Your task to perform on an android device: change keyboard looks Image 0: 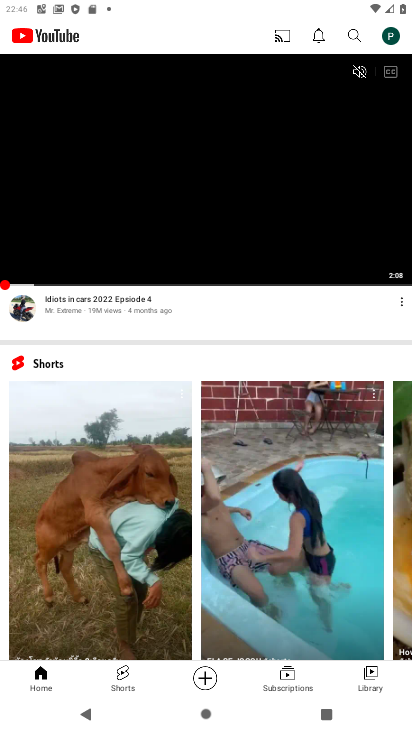
Step 0: press home button
Your task to perform on an android device: change keyboard looks Image 1: 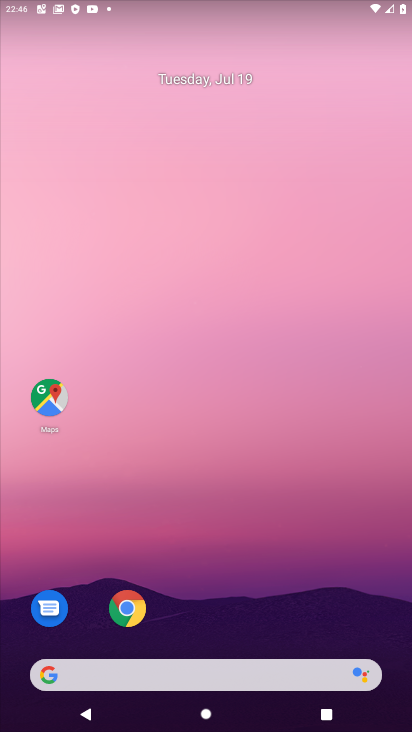
Step 1: drag from (258, 631) to (267, 98)
Your task to perform on an android device: change keyboard looks Image 2: 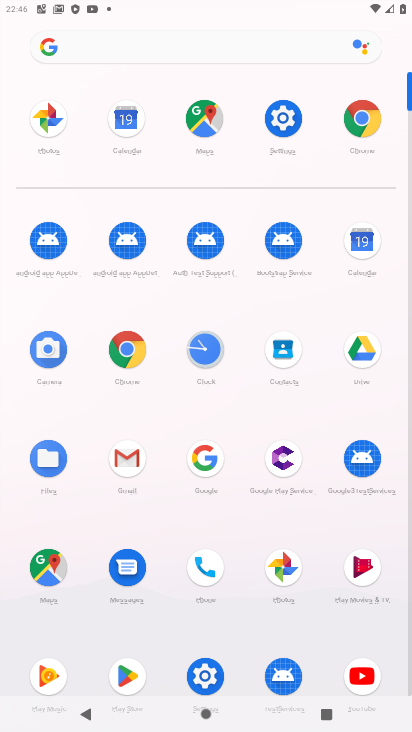
Step 2: click (275, 125)
Your task to perform on an android device: change keyboard looks Image 3: 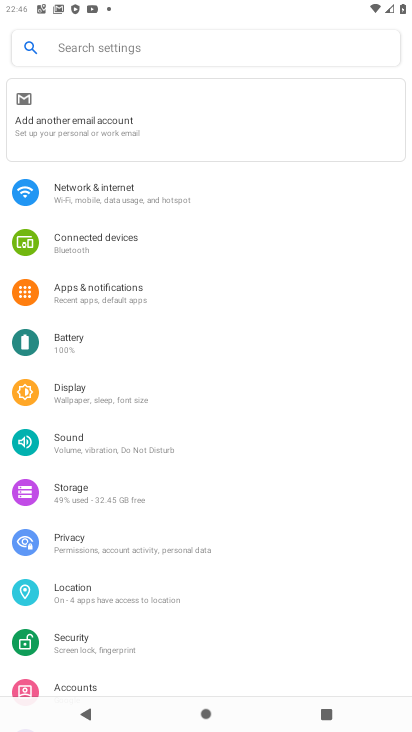
Step 3: drag from (259, 617) to (247, 182)
Your task to perform on an android device: change keyboard looks Image 4: 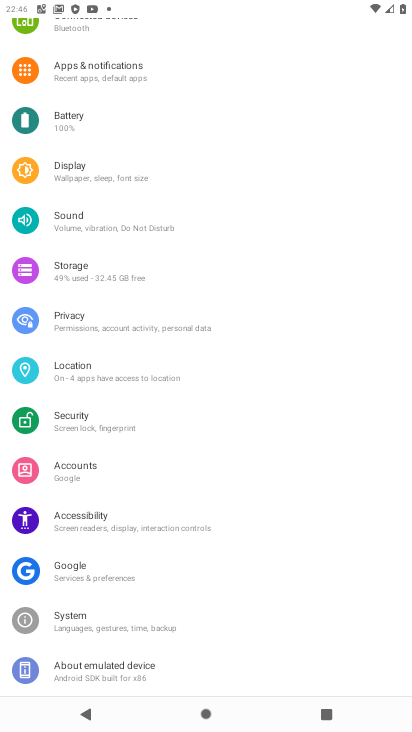
Step 4: click (116, 632)
Your task to perform on an android device: change keyboard looks Image 5: 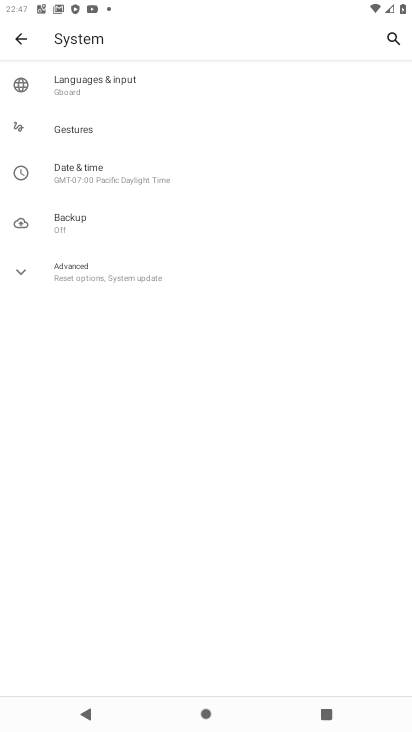
Step 5: click (115, 92)
Your task to perform on an android device: change keyboard looks Image 6: 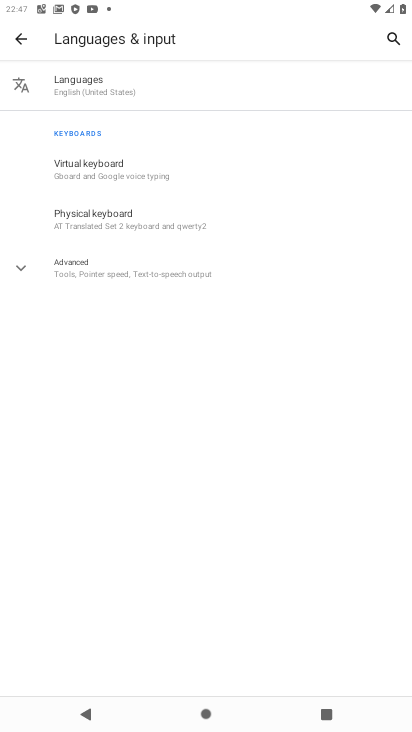
Step 6: click (97, 165)
Your task to perform on an android device: change keyboard looks Image 7: 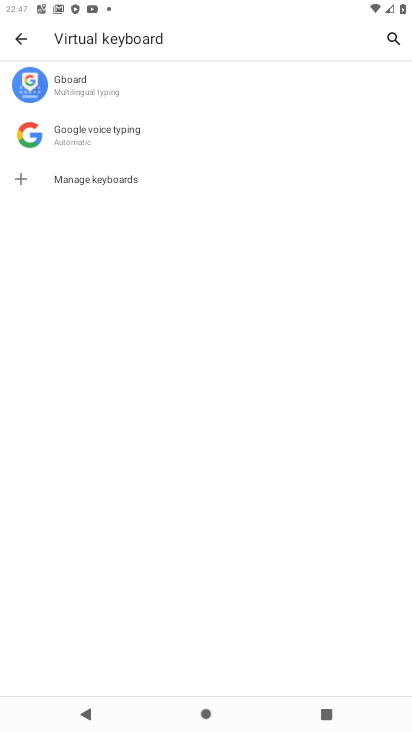
Step 7: click (121, 85)
Your task to perform on an android device: change keyboard looks Image 8: 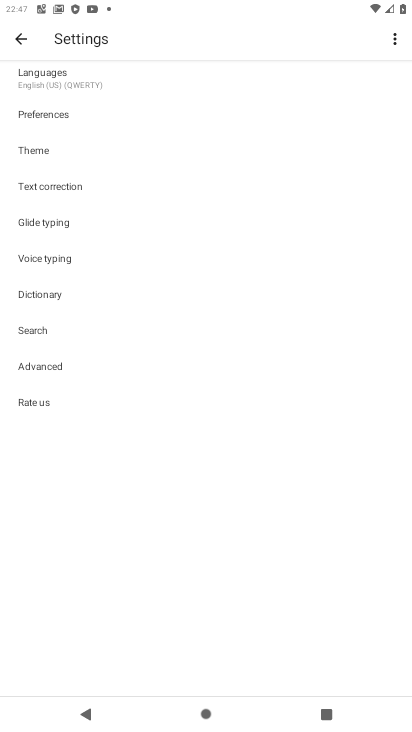
Step 8: click (22, 149)
Your task to perform on an android device: change keyboard looks Image 9: 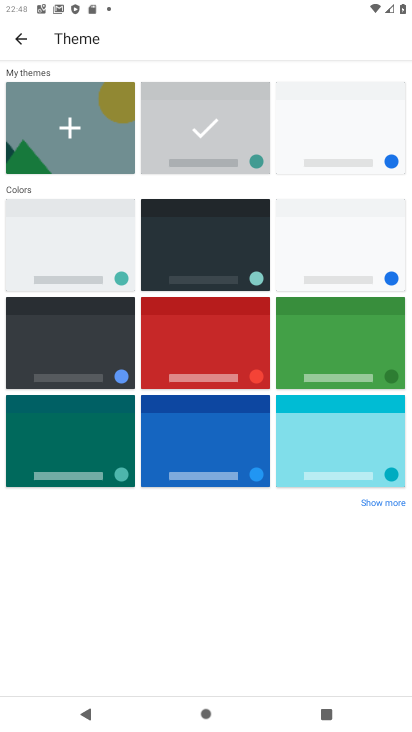
Step 9: click (326, 116)
Your task to perform on an android device: change keyboard looks Image 10: 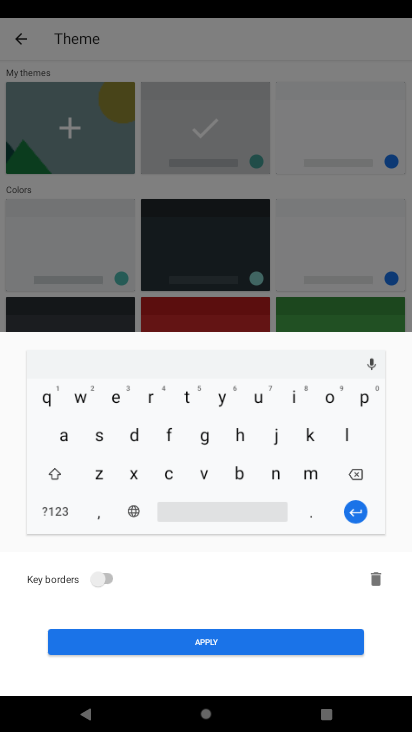
Step 10: click (174, 641)
Your task to perform on an android device: change keyboard looks Image 11: 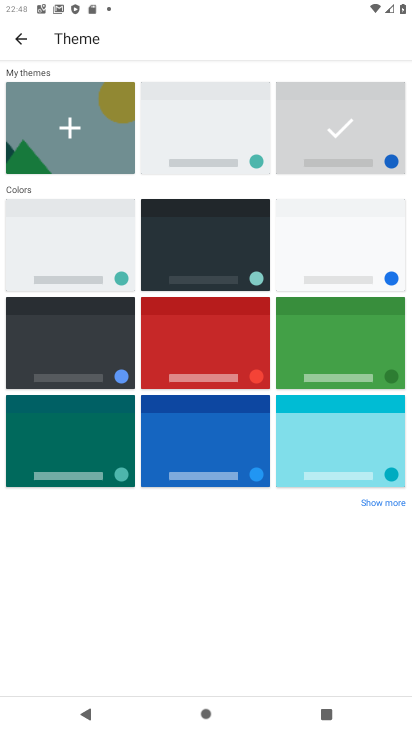
Step 11: task complete